Your task to perform on an android device: Open Chrome and go to settings Image 0: 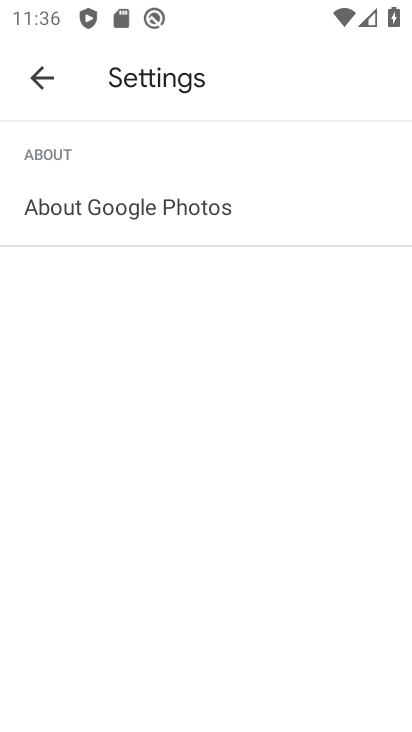
Step 0: task complete